Your task to perform on an android device: Play the last video I watched on Youtube Image 0: 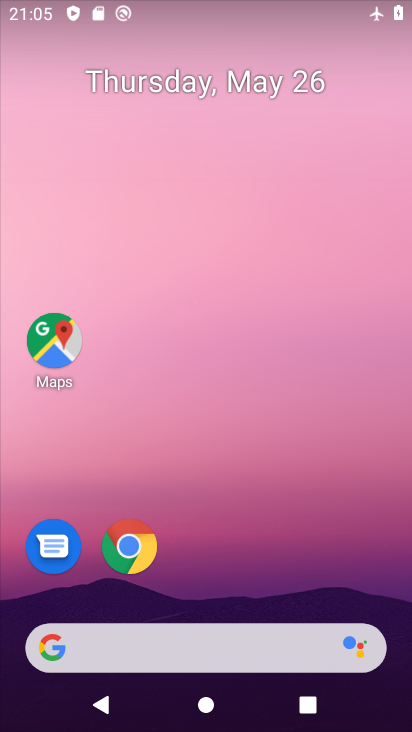
Step 0: drag from (207, 583) to (169, 87)
Your task to perform on an android device: Play the last video I watched on Youtube Image 1: 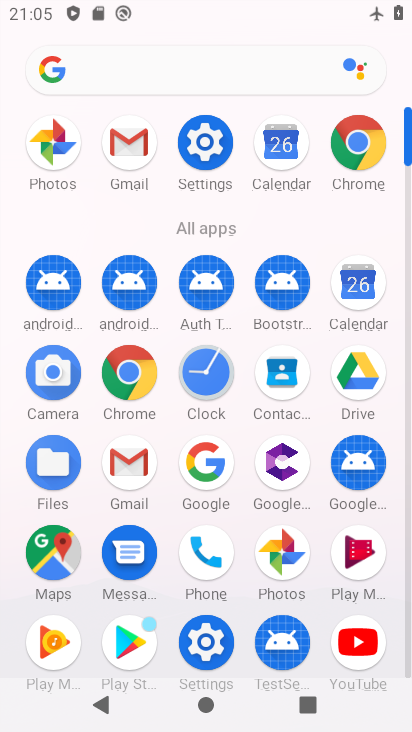
Step 1: click (371, 635)
Your task to perform on an android device: Play the last video I watched on Youtube Image 2: 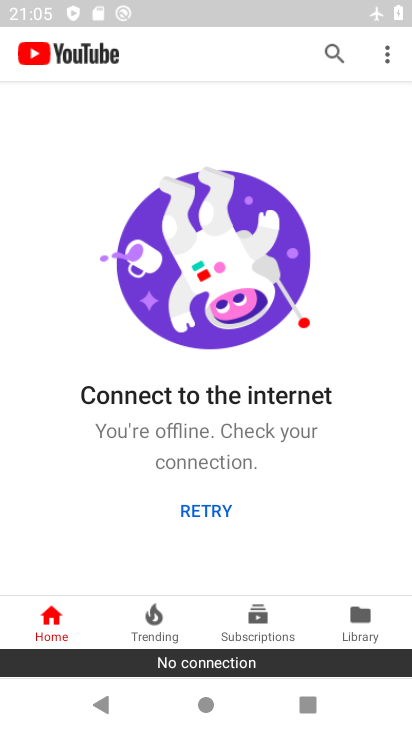
Step 2: click (363, 620)
Your task to perform on an android device: Play the last video I watched on Youtube Image 3: 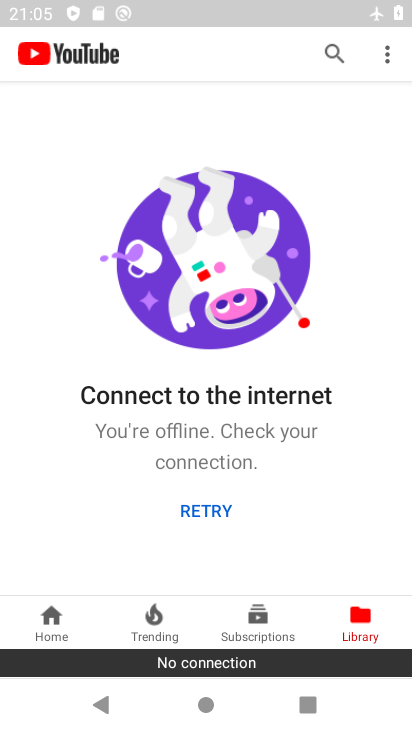
Step 3: task complete